Your task to perform on an android device: Open Yahoo.com Image 0: 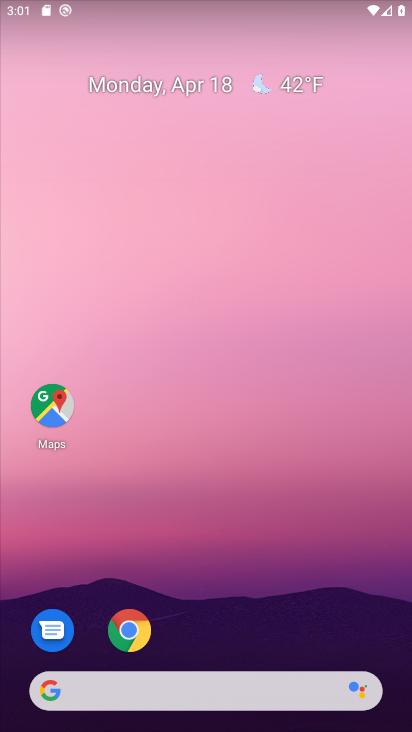
Step 0: drag from (264, 456) to (273, 287)
Your task to perform on an android device: Open Yahoo.com Image 1: 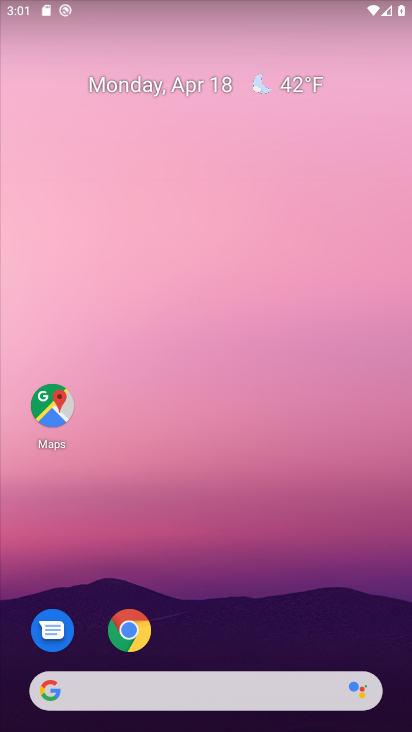
Step 1: click (239, 205)
Your task to perform on an android device: Open Yahoo.com Image 2: 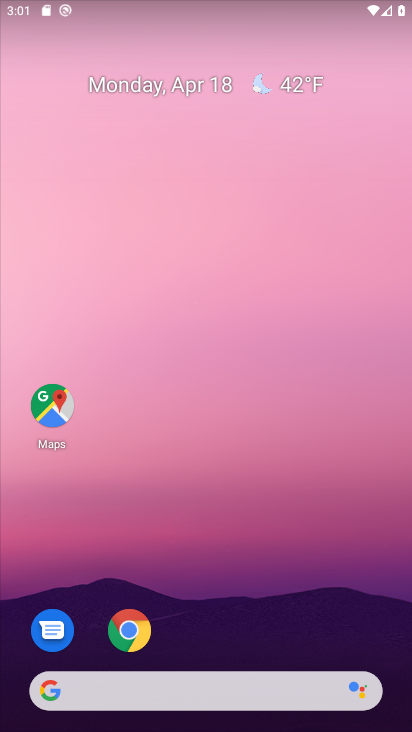
Step 2: drag from (256, 608) to (273, 218)
Your task to perform on an android device: Open Yahoo.com Image 3: 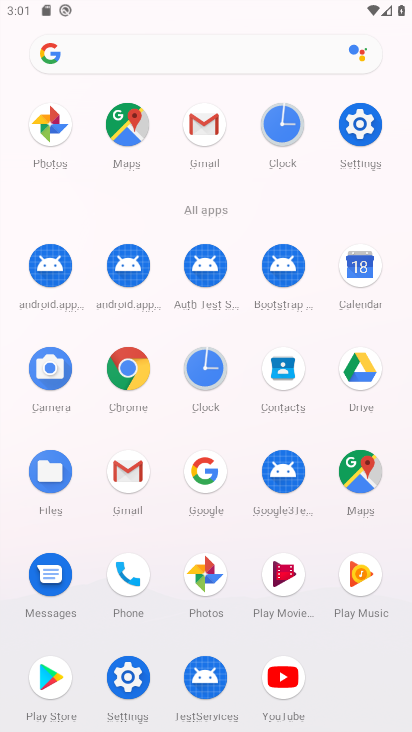
Step 3: click (121, 368)
Your task to perform on an android device: Open Yahoo.com Image 4: 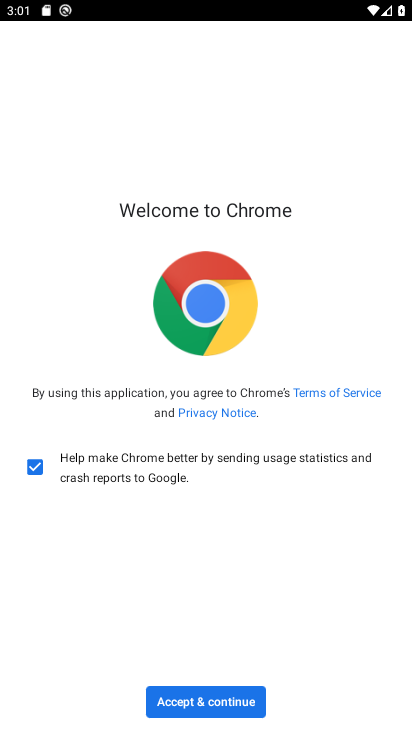
Step 4: click (222, 696)
Your task to perform on an android device: Open Yahoo.com Image 5: 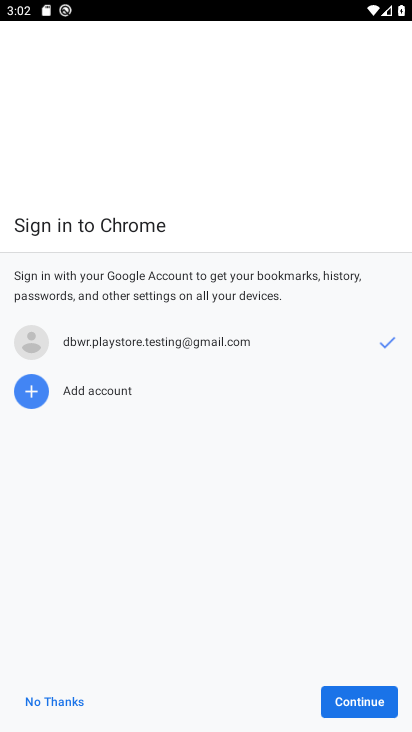
Step 5: click (347, 693)
Your task to perform on an android device: Open Yahoo.com Image 6: 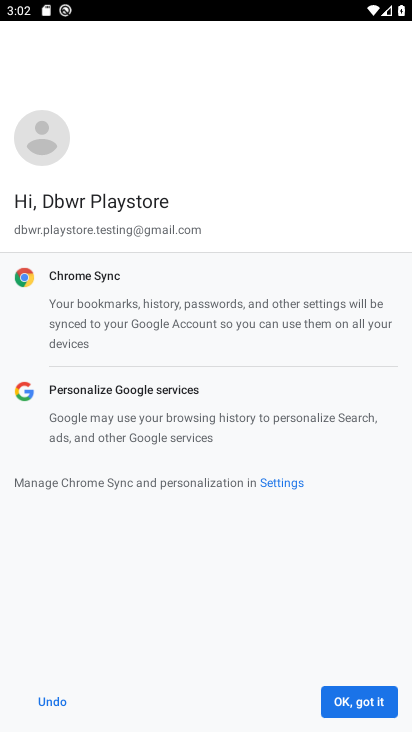
Step 6: click (347, 692)
Your task to perform on an android device: Open Yahoo.com Image 7: 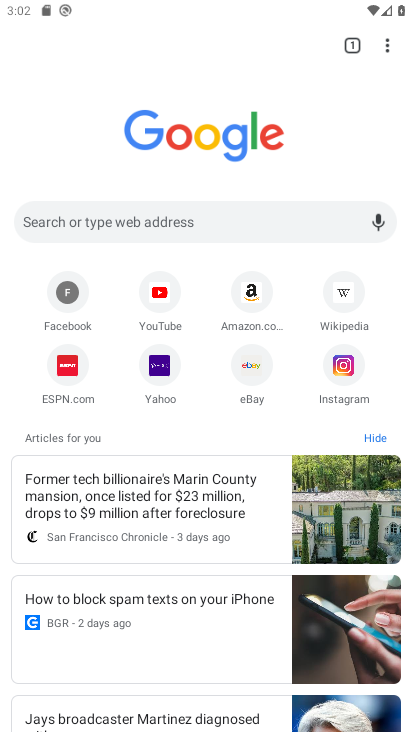
Step 7: click (164, 367)
Your task to perform on an android device: Open Yahoo.com Image 8: 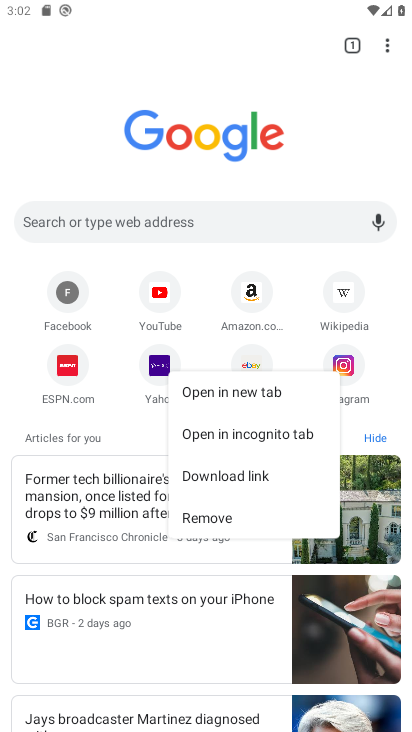
Step 8: click (160, 368)
Your task to perform on an android device: Open Yahoo.com Image 9: 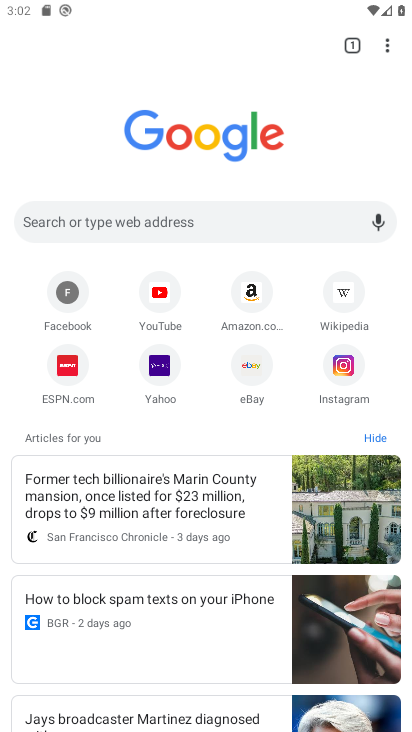
Step 9: click (145, 369)
Your task to perform on an android device: Open Yahoo.com Image 10: 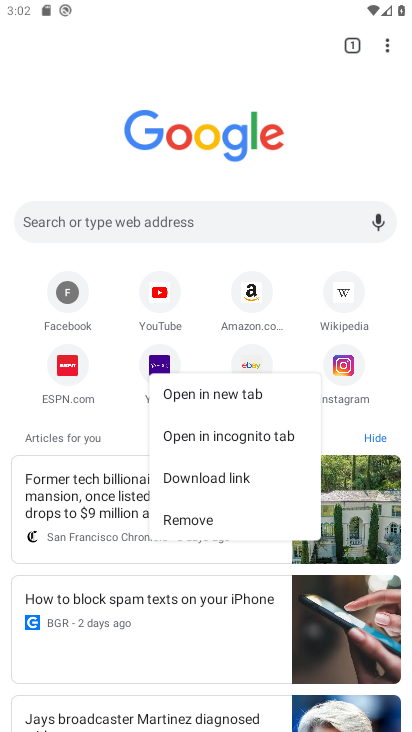
Step 10: click (153, 356)
Your task to perform on an android device: Open Yahoo.com Image 11: 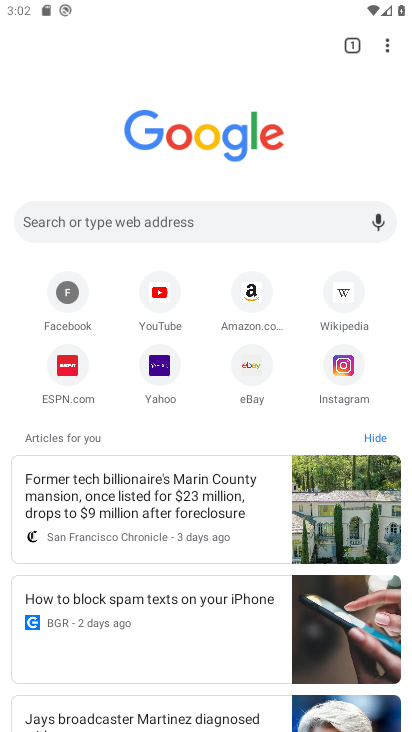
Step 11: click (154, 355)
Your task to perform on an android device: Open Yahoo.com Image 12: 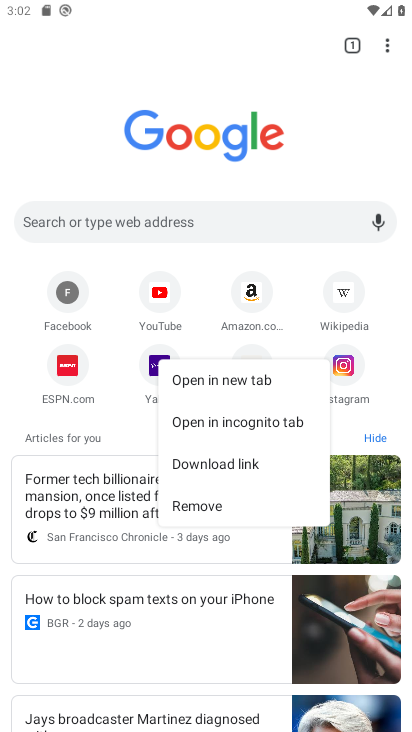
Step 12: drag from (154, 355) to (184, 375)
Your task to perform on an android device: Open Yahoo.com Image 13: 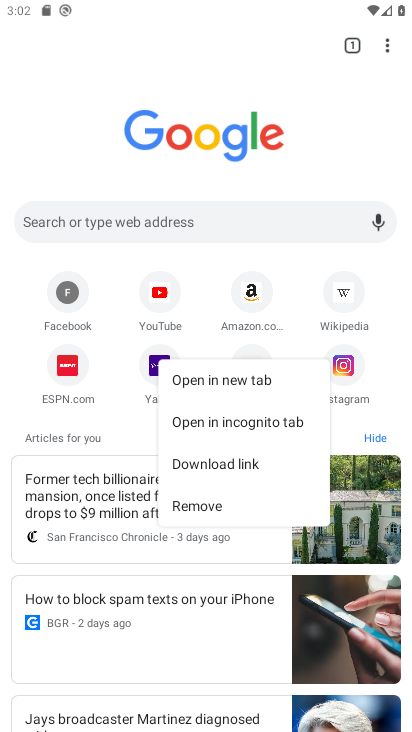
Step 13: click (156, 366)
Your task to perform on an android device: Open Yahoo.com Image 14: 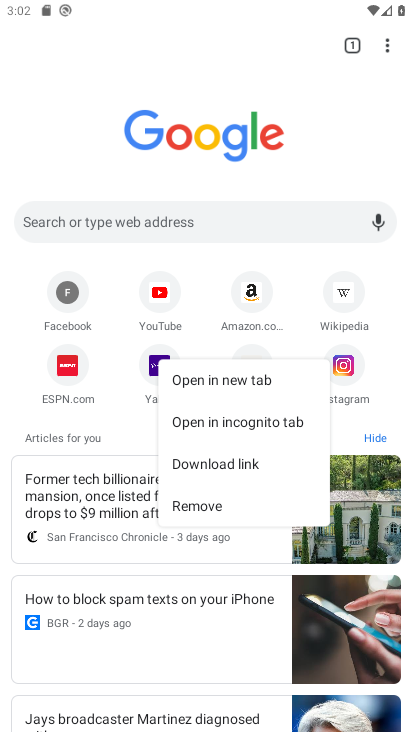
Step 14: click (153, 362)
Your task to perform on an android device: Open Yahoo.com Image 15: 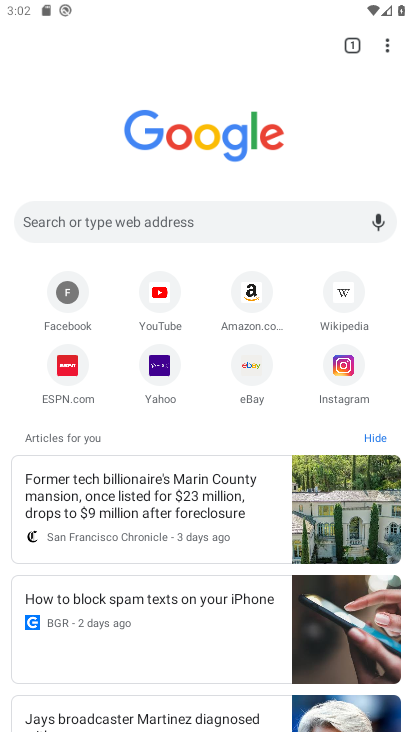
Step 15: click (185, 385)
Your task to perform on an android device: Open Yahoo.com Image 16: 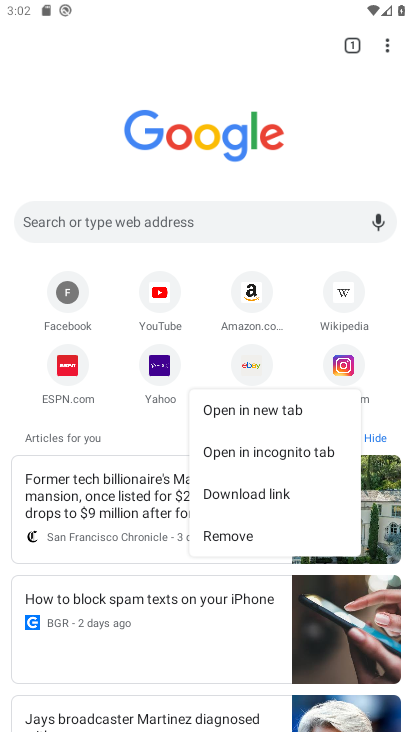
Step 16: click (160, 367)
Your task to perform on an android device: Open Yahoo.com Image 17: 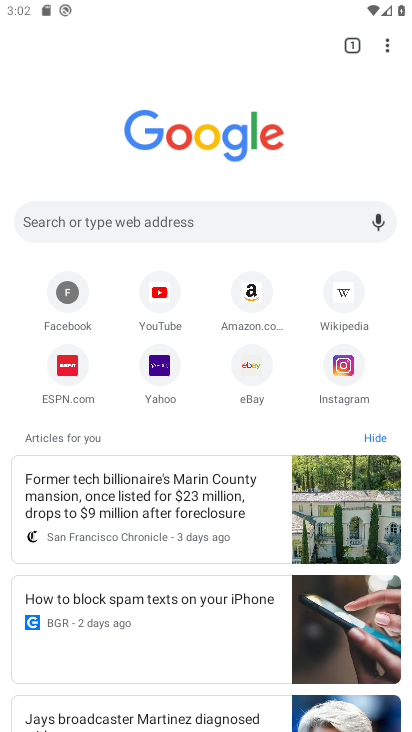
Step 17: click (160, 361)
Your task to perform on an android device: Open Yahoo.com Image 18: 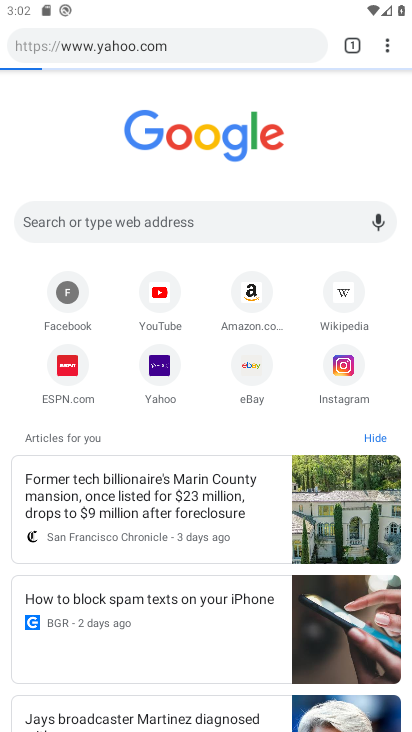
Step 18: click (160, 361)
Your task to perform on an android device: Open Yahoo.com Image 19: 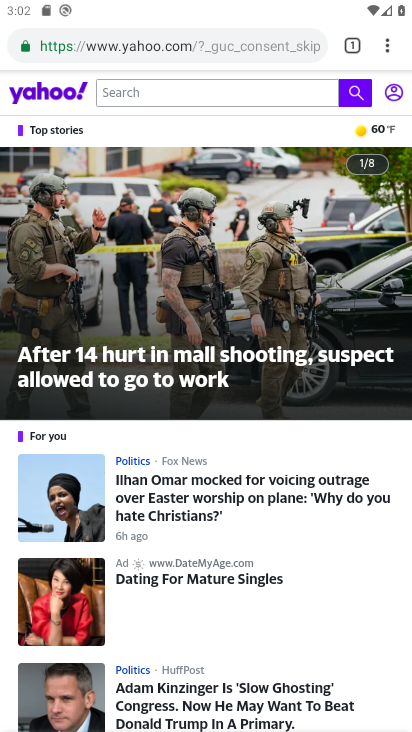
Step 19: task complete